Your task to perform on an android device: Open the calendar app, open the side menu, and click the "Day" option Image 0: 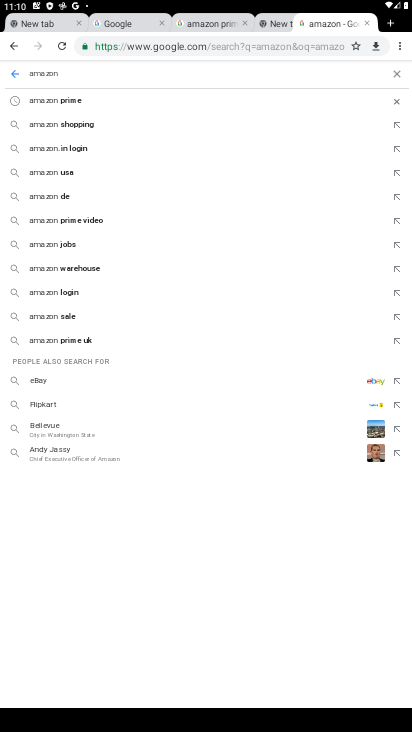
Step 0: press home button
Your task to perform on an android device: Open the calendar app, open the side menu, and click the "Day" option Image 1: 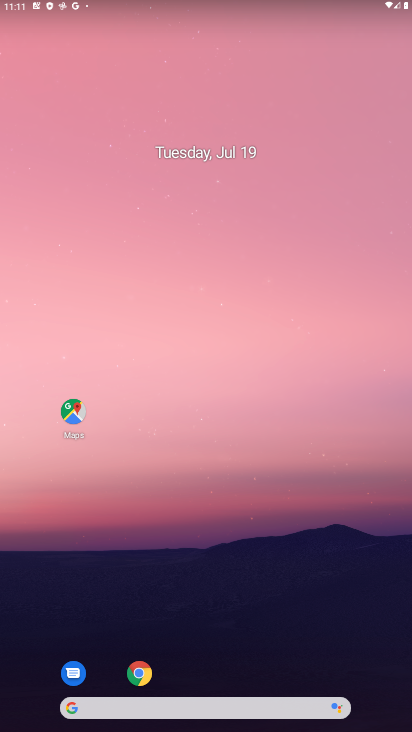
Step 1: drag from (287, 666) to (183, 259)
Your task to perform on an android device: Open the calendar app, open the side menu, and click the "Day" option Image 2: 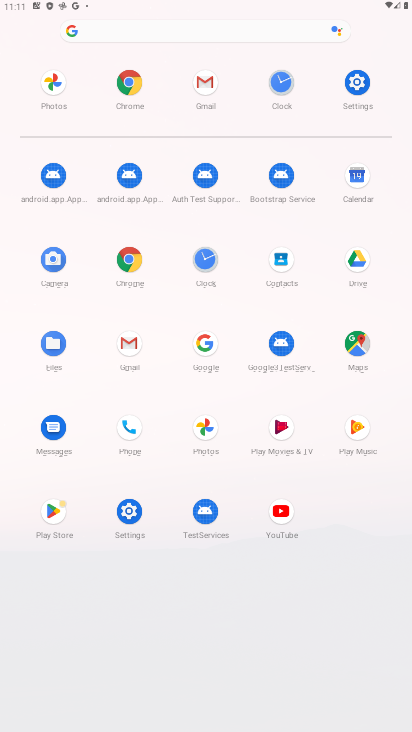
Step 2: click (346, 164)
Your task to perform on an android device: Open the calendar app, open the side menu, and click the "Day" option Image 3: 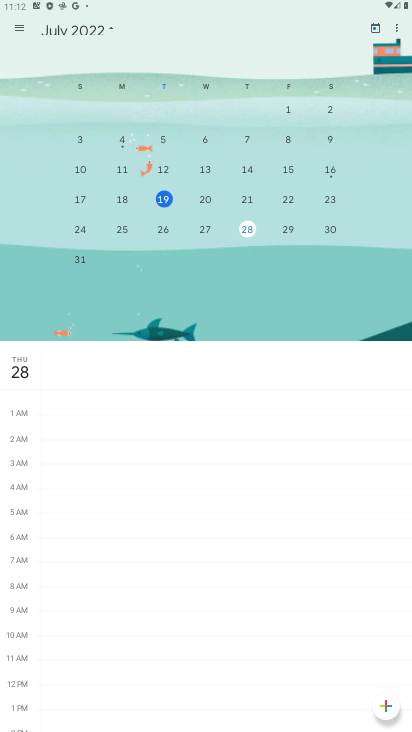
Step 3: click (23, 34)
Your task to perform on an android device: Open the calendar app, open the side menu, and click the "Day" option Image 4: 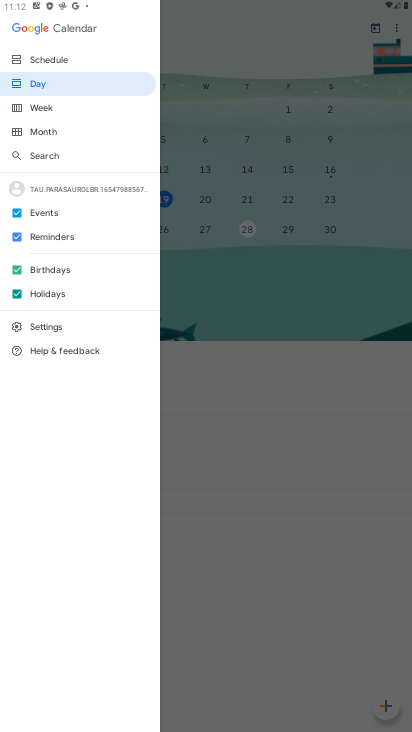
Step 4: click (59, 88)
Your task to perform on an android device: Open the calendar app, open the side menu, and click the "Day" option Image 5: 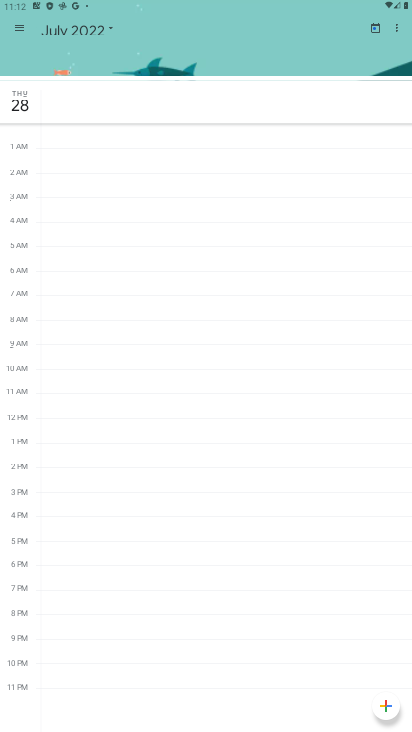
Step 5: task complete